Your task to perform on an android device: turn on showing notifications on the lock screen Image 0: 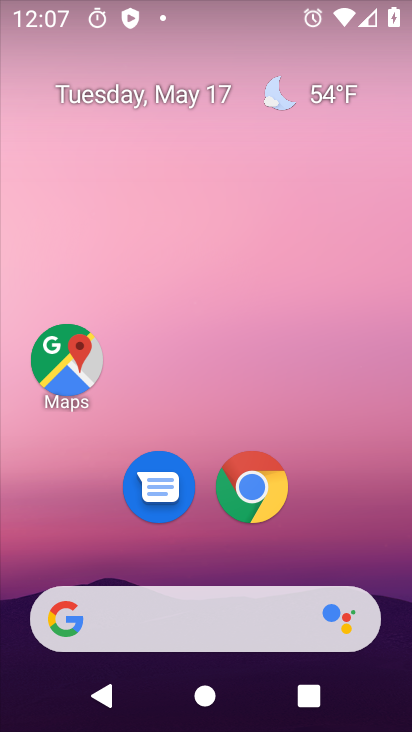
Step 0: drag from (163, 511) to (244, 16)
Your task to perform on an android device: turn on showing notifications on the lock screen Image 1: 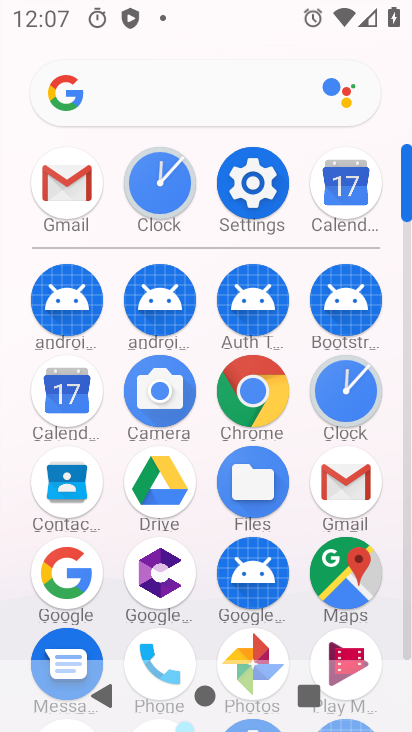
Step 1: click (250, 189)
Your task to perform on an android device: turn on showing notifications on the lock screen Image 2: 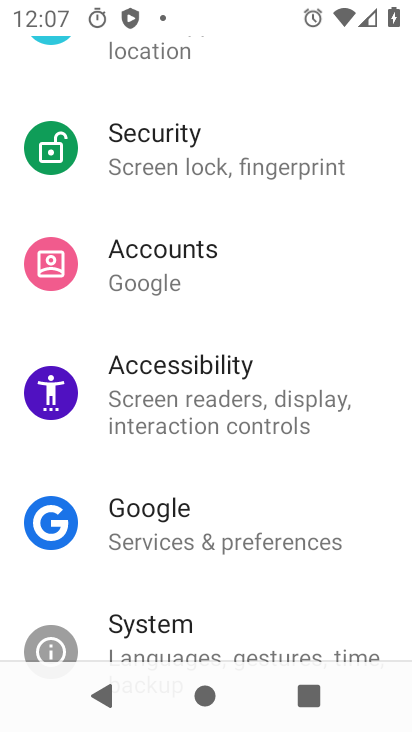
Step 2: drag from (228, 181) to (173, 594)
Your task to perform on an android device: turn on showing notifications on the lock screen Image 3: 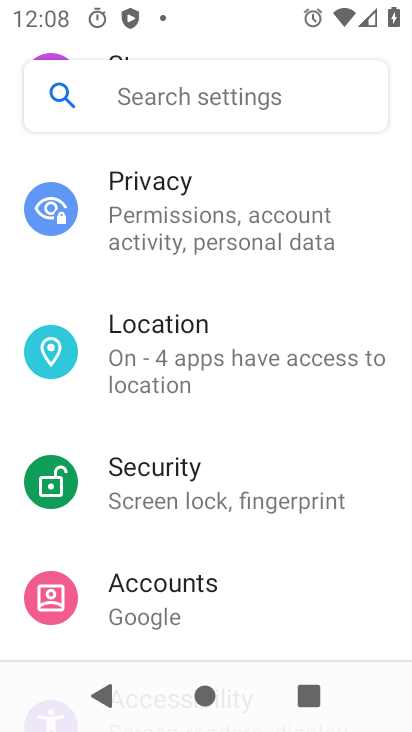
Step 3: drag from (206, 624) to (178, 717)
Your task to perform on an android device: turn on showing notifications on the lock screen Image 4: 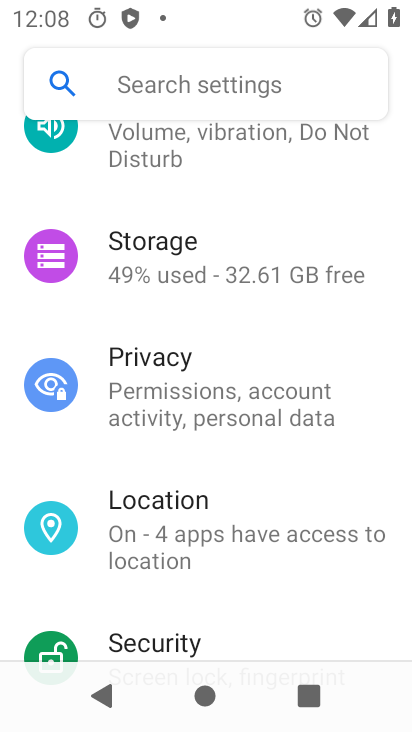
Step 4: drag from (191, 214) to (133, 710)
Your task to perform on an android device: turn on showing notifications on the lock screen Image 5: 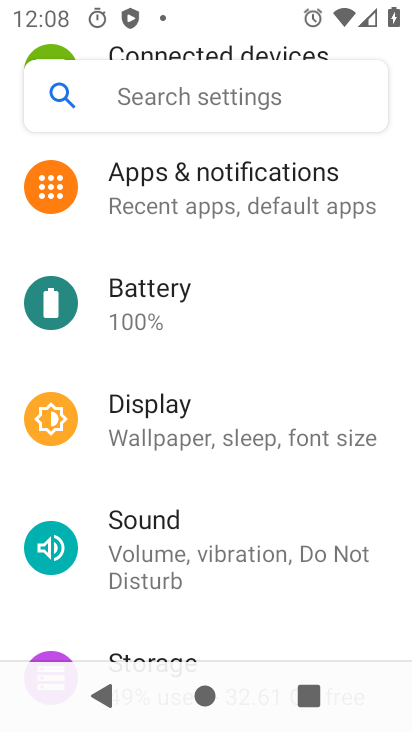
Step 5: drag from (222, 248) to (195, 571)
Your task to perform on an android device: turn on showing notifications on the lock screen Image 6: 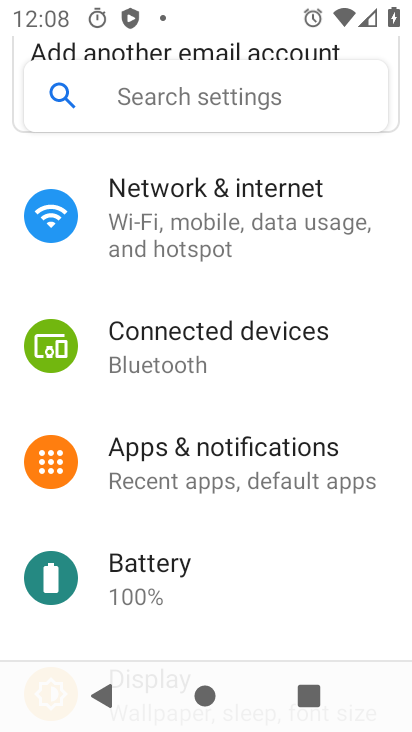
Step 6: click (204, 458)
Your task to perform on an android device: turn on showing notifications on the lock screen Image 7: 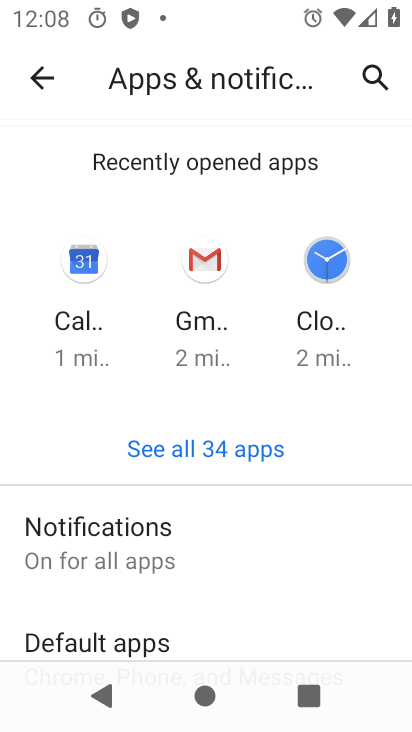
Step 7: drag from (242, 579) to (310, 42)
Your task to perform on an android device: turn on showing notifications on the lock screen Image 8: 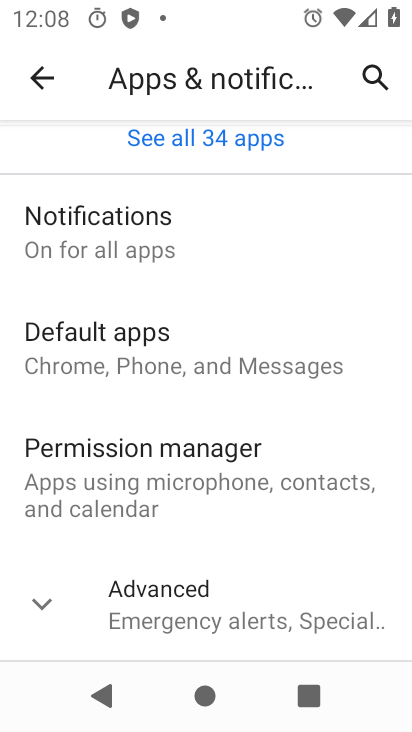
Step 8: click (133, 229)
Your task to perform on an android device: turn on showing notifications on the lock screen Image 9: 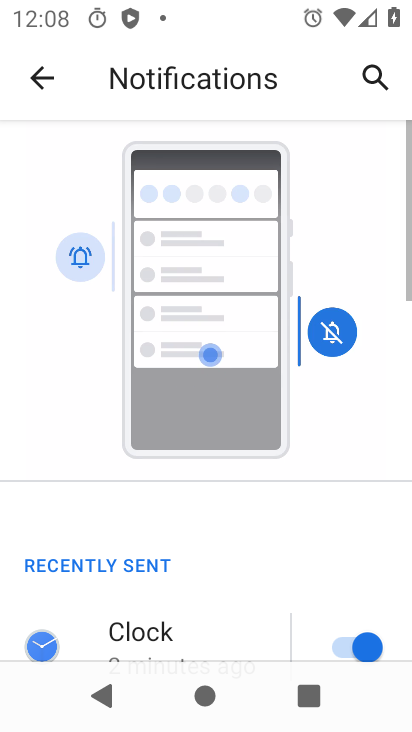
Step 9: drag from (184, 631) to (329, 0)
Your task to perform on an android device: turn on showing notifications on the lock screen Image 10: 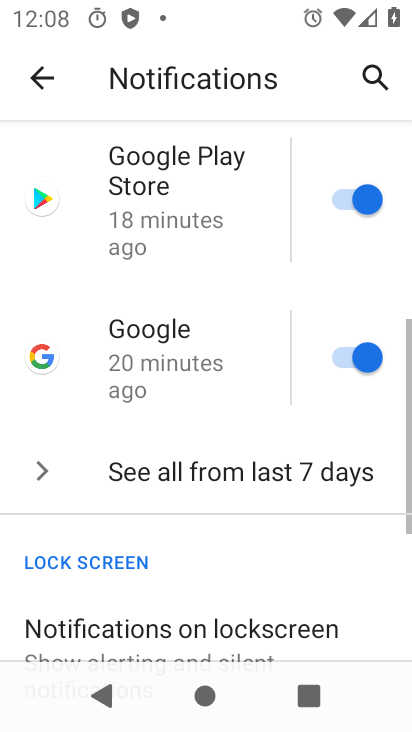
Step 10: drag from (205, 592) to (231, 228)
Your task to perform on an android device: turn on showing notifications on the lock screen Image 11: 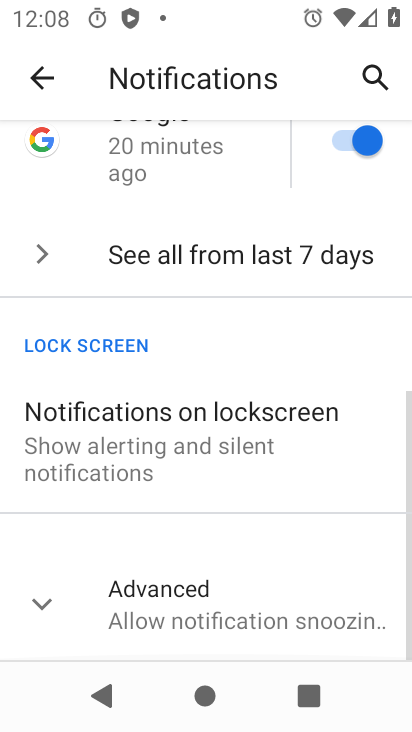
Step 11: click (163, 431)
Your task to perform on an android device: turn on showing notifications on the lock screen Image 12: 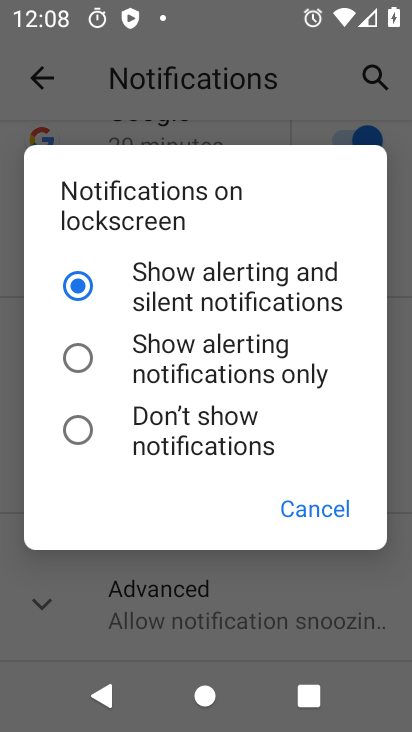
Step 12: click (88, 285)
Your task to perform on an android device: turn on showing notifications on the lock screen Image 13: 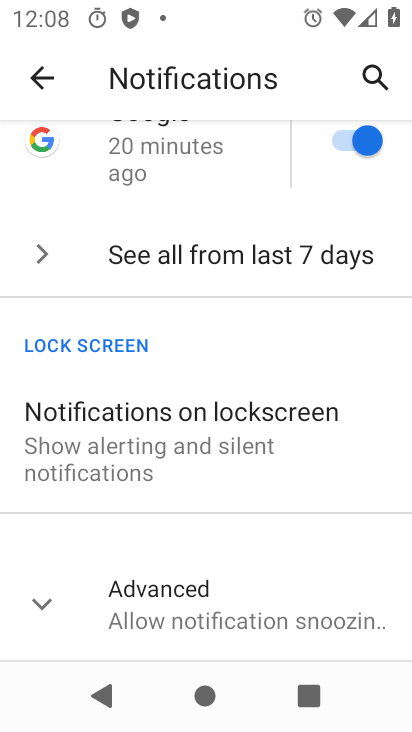
Step 13: task complete